Your task to perform on an android device: Go to wifi settings Image 0: 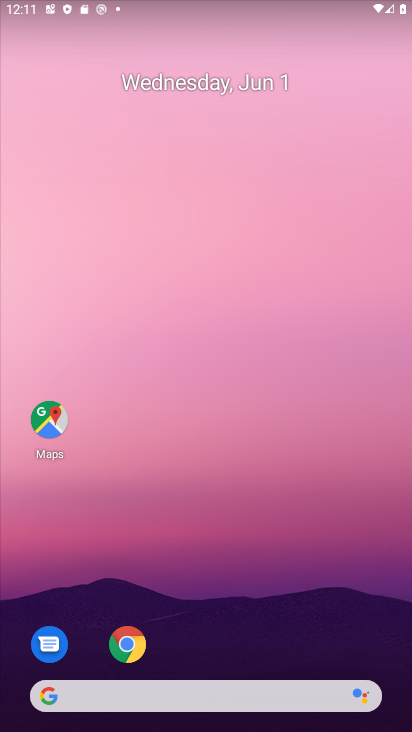
Step 0: drag from (322, 601) to (334, 146)
Your task to perform on an android device: Go to wifi settings Image 1: 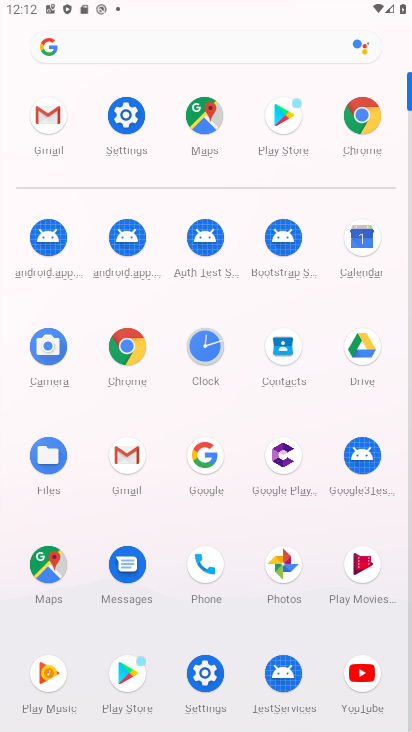
Step 1: click (137, 136)
Your task to perform on an android device: Go to wifi settings Image 2: 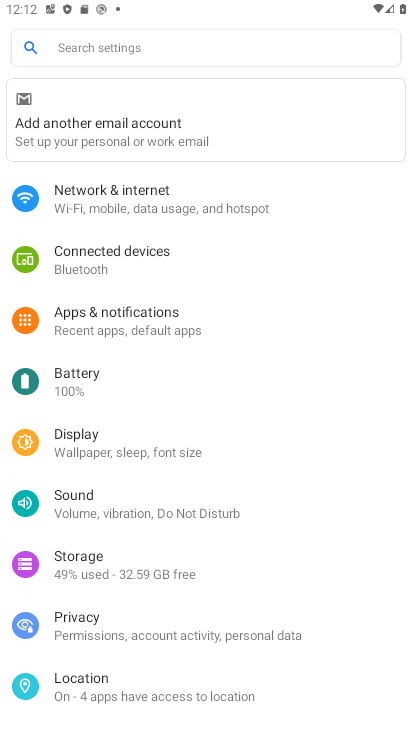
Step 2: click (188, 214)
Your task to perform on an android device: Go to wifi settings Image 3: 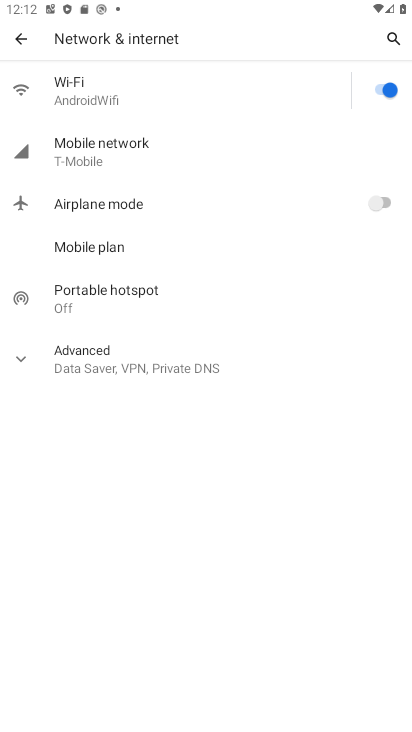
Step 3: click (180, 107)
Your task to perform on an android device: Go to wifi settings Image 4: 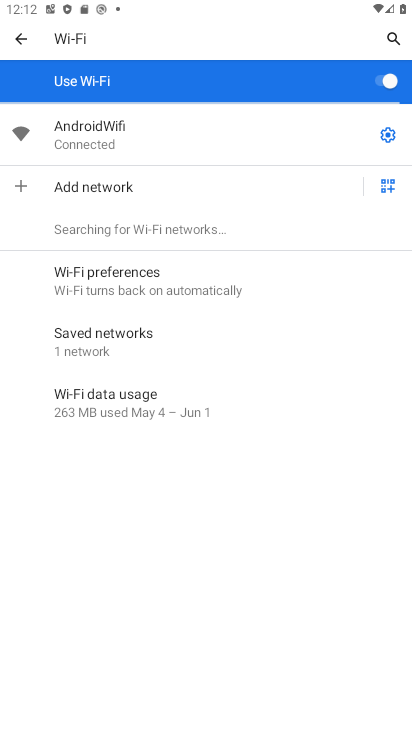
Step 4: task complete